Your task to perform on an android device: check battery use Image 0: 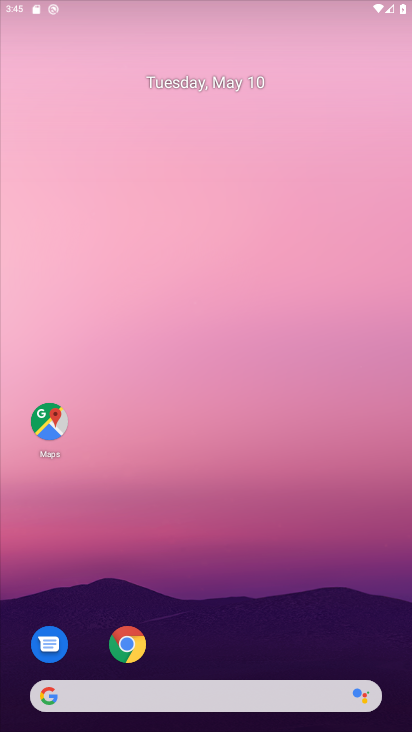
Step 0: drag from (200, 645) to (260, 9)
Your task to perform on an android device: check battery use Image 1: 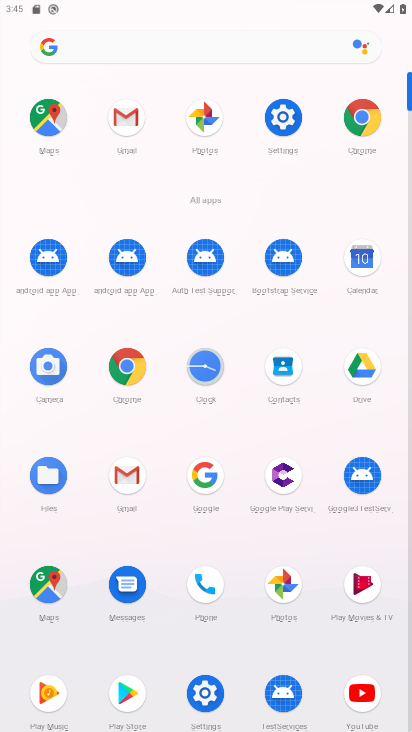
Step 1: click (282, 113)
Your task to perform on an android device: check battery use Image 2: 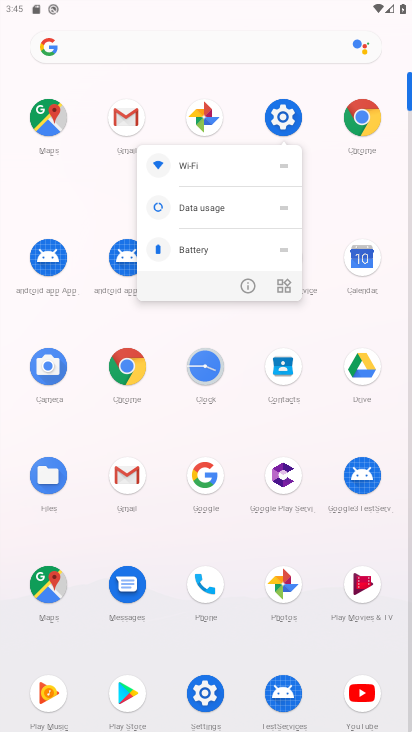
Step 2: click (281, 114)
Your task to perform on an android device: check battery use Image 3: 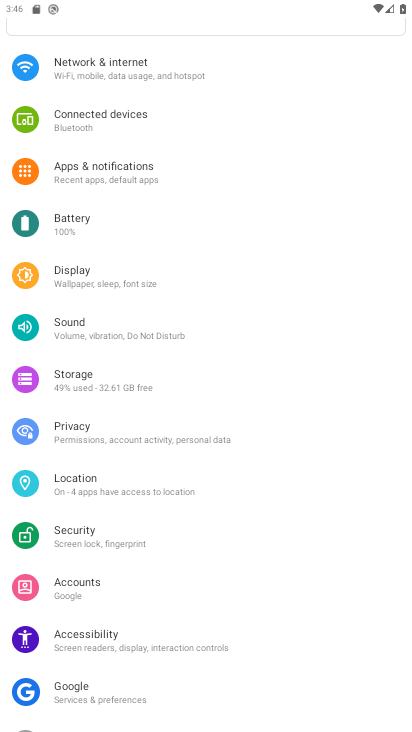
Step 3: click (98, 214)
Your task to perform on an android device: check battery use Image 4: 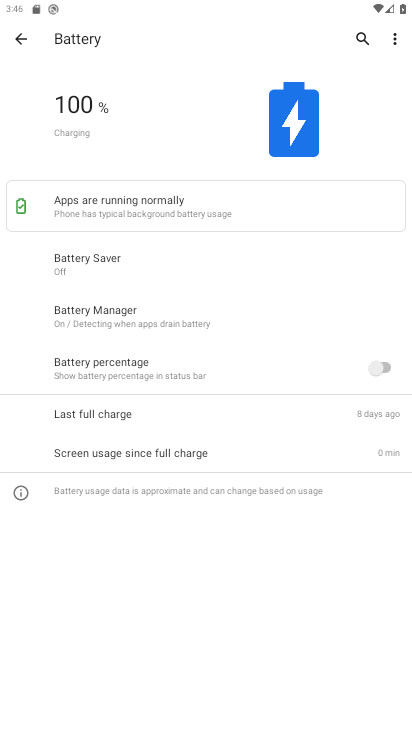
Step 4: click (392, 34)
Your task to perform on an android device: check battery use Image 5: 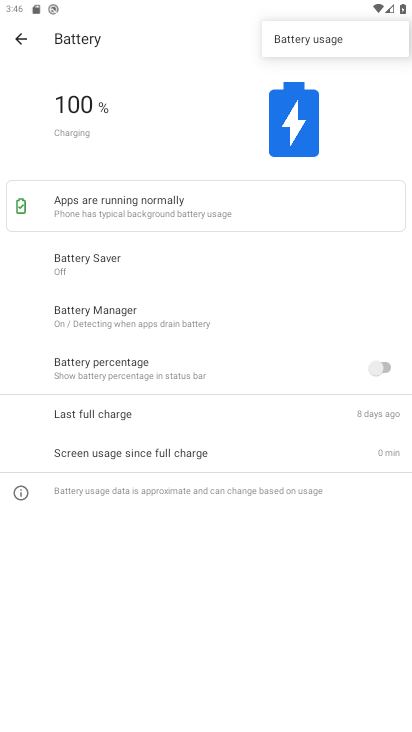
Step 5: click (309, 41)
Your task to perform on an android device: check battery use Image 6: 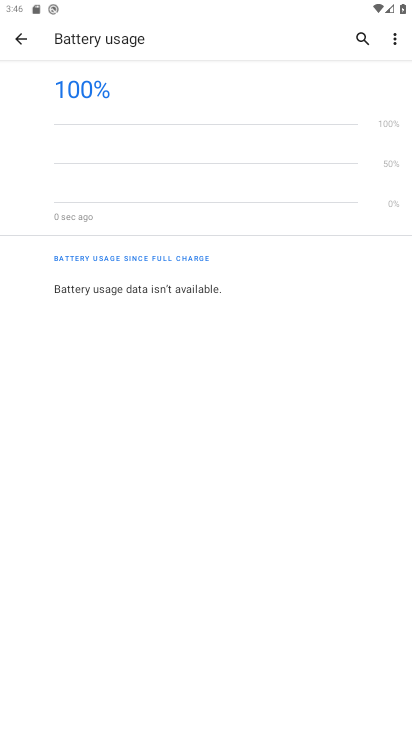
Step 6: task complete